Your task to perform on an android device: Go to Google Image 0: 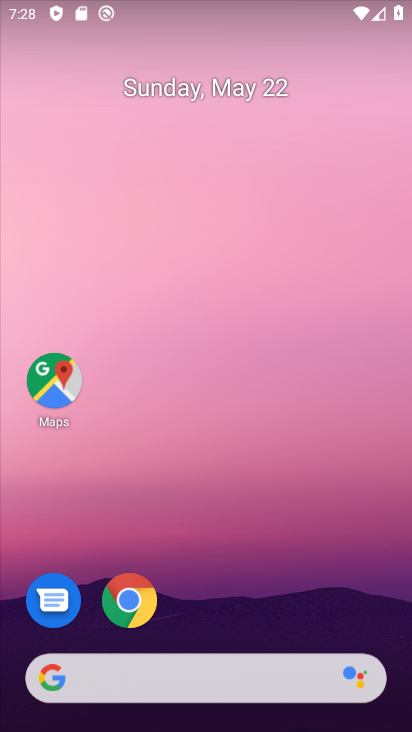
Step 0: drag from (214, 598) to (219, 17)
Your task to perform on an android device: Go to Google Image 1: 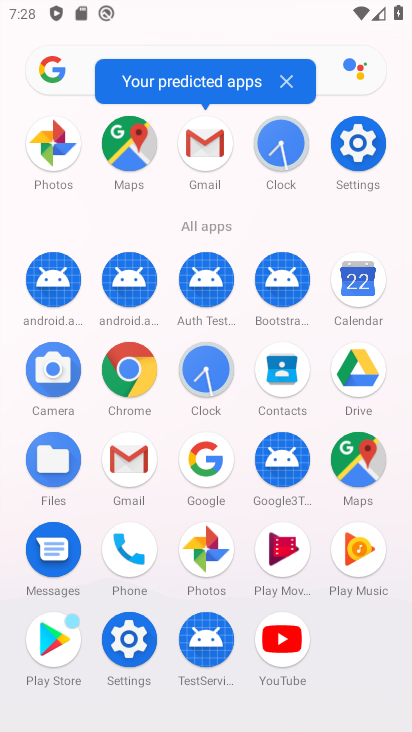
Step 1: click (122, 362)
Your task to perform on an android device: Go to Google Image 2: 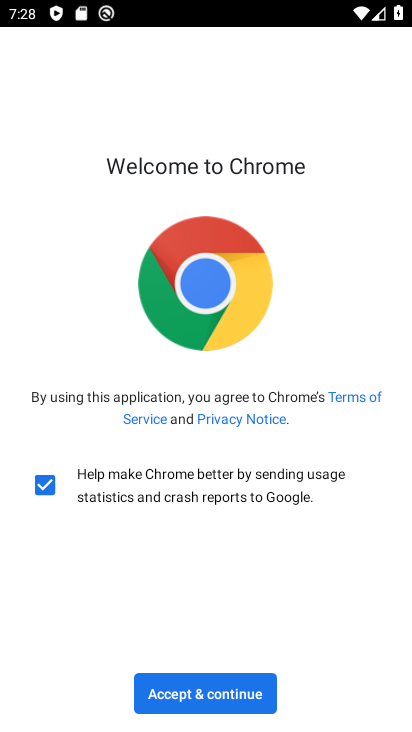
Step 2: click (208, 697)
Your task to perform on an android device: Go to Google Image 3: 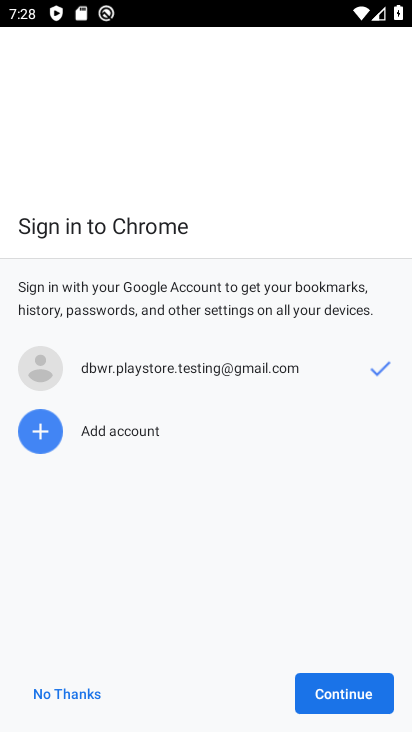
Step 3: click (327, 683)
Your task to perform on an android device: Go to Google Image 4: 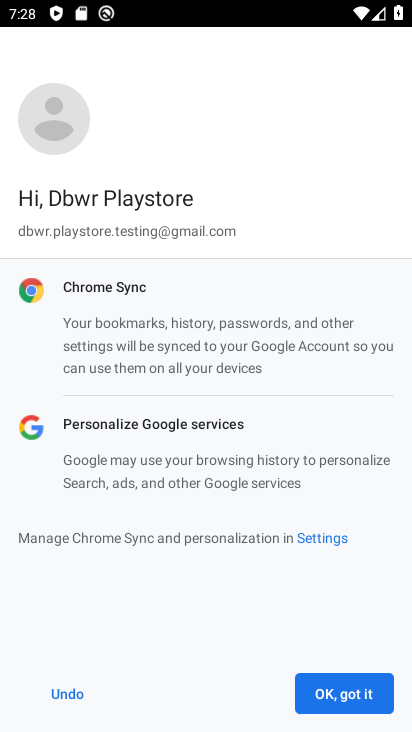
Step 4: click (336, 689)
Your task to perform on an android device: Go to Google Image 5: 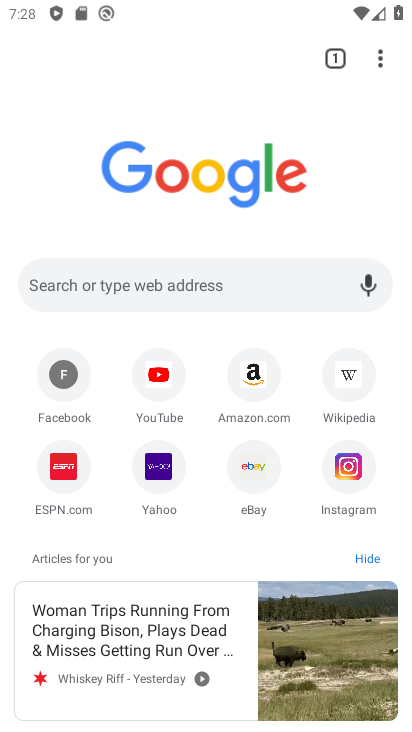
Step 5: click (251, 284)
Your task to perform on an android device: Go to Google Image 6: 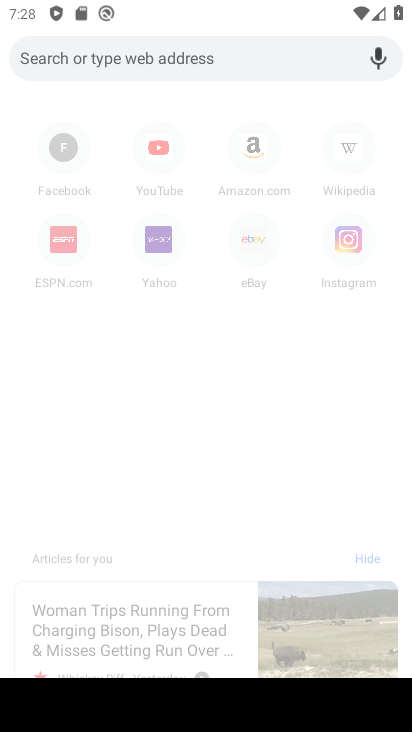
Step 6: type "google"
Your task to perform on an android device: Go to Google Image 7: 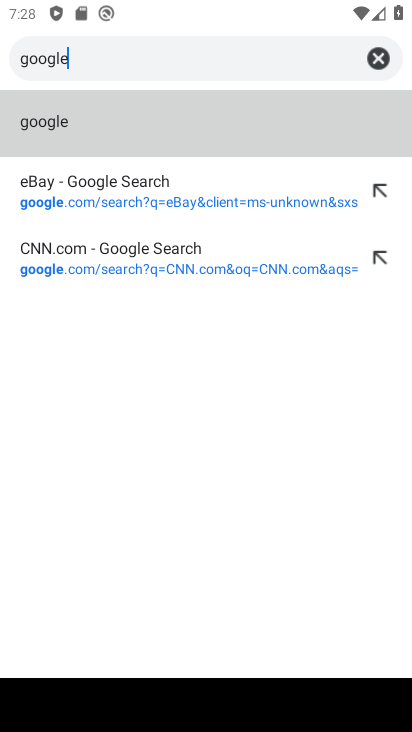
Step 7: click (86, 133)
Your task to perform on an android device: Go to Google Image 8: 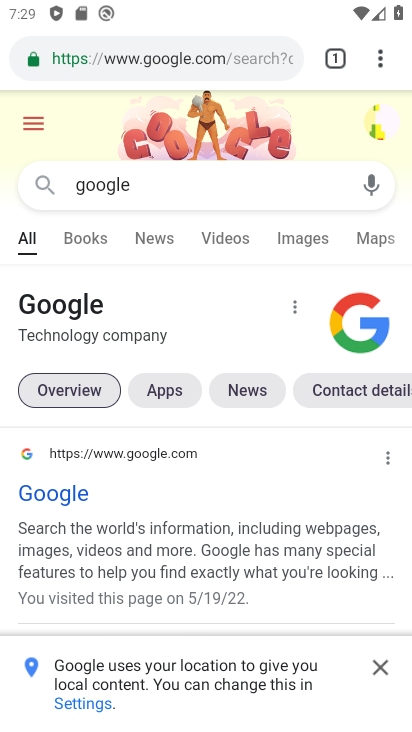
Step 8: click (30, 496)
Your task to perform on an android device: Go to Google Image 9: 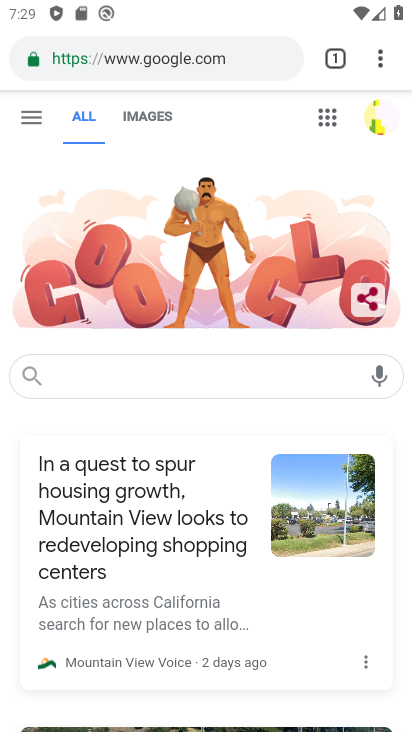
Step 9: task complete